Your task to perform on an android device: When is my next meeting? Image 0: 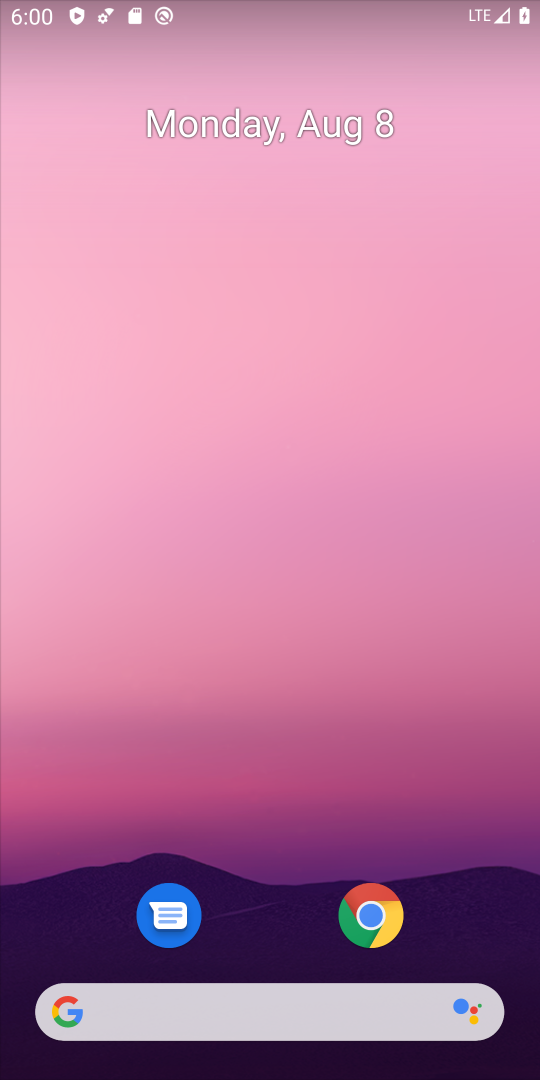
Step 0: drag from (282, 848) to (262, 35)
Your task to perform on an android device: When is my next meeting? Image 1: 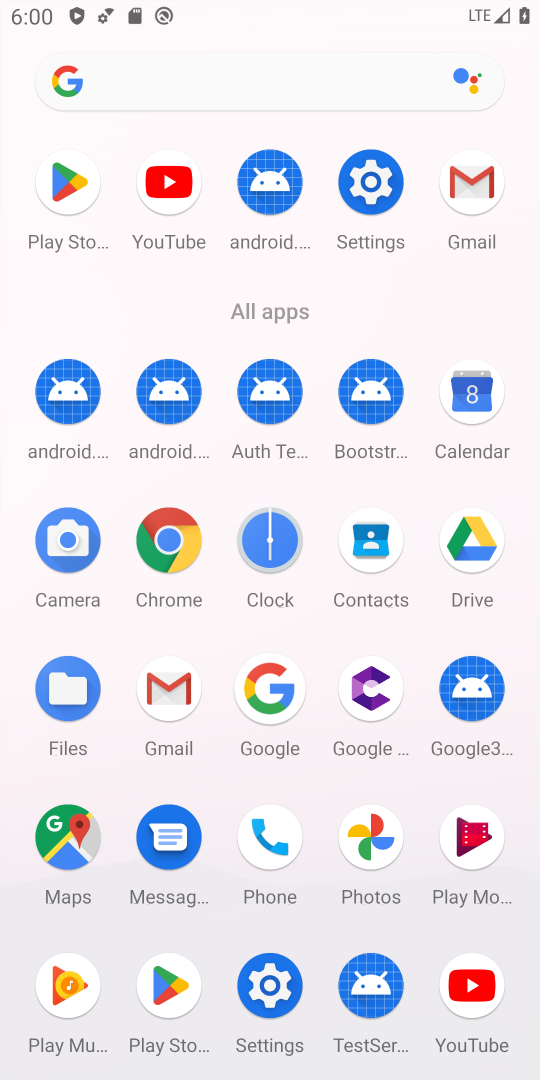
Step 1: click (473, 393)
Your task to perform on an android device: When is my next meeting? Image 2: 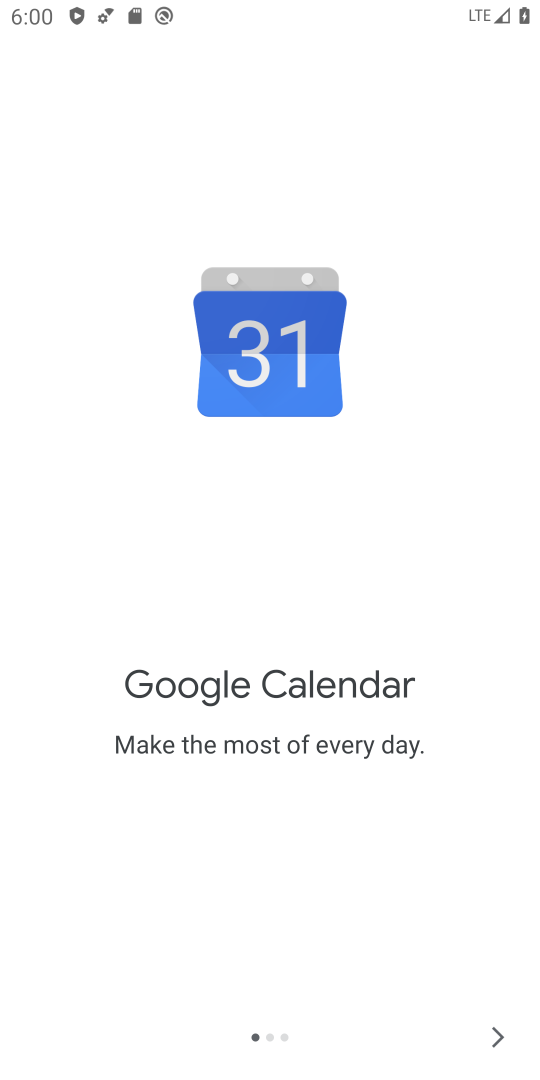
Step 2: click (497, 1027)
Your task to perform on an android device: When is my next meeting? Image 3: 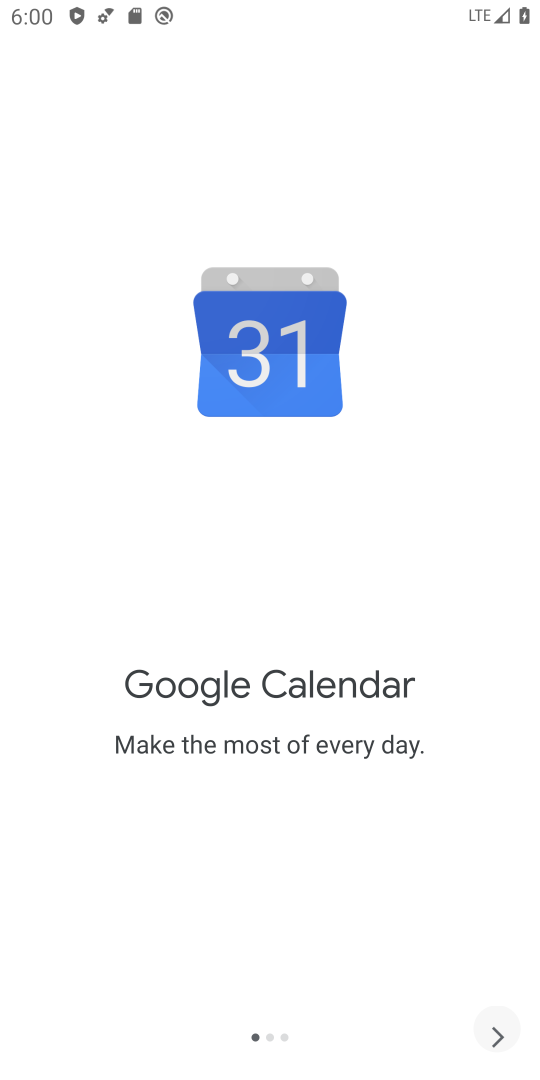
Step 3: click (497, 1027)
Your task to perform on an android device: When is my next meeting? Image 4: 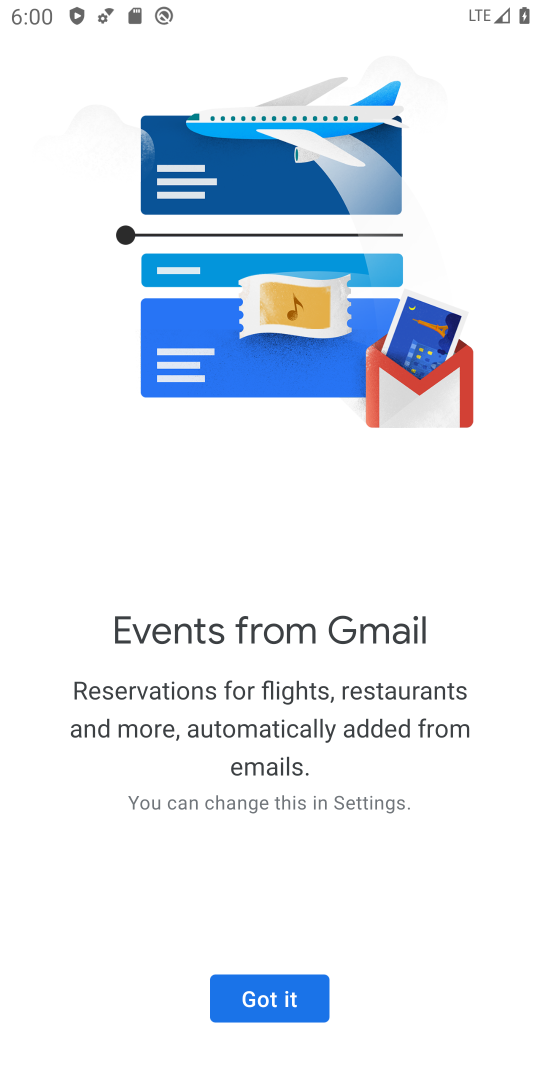
Step 4: click (242, 999)
Your task to perform on an android device: When is my next meeting? Image 5: 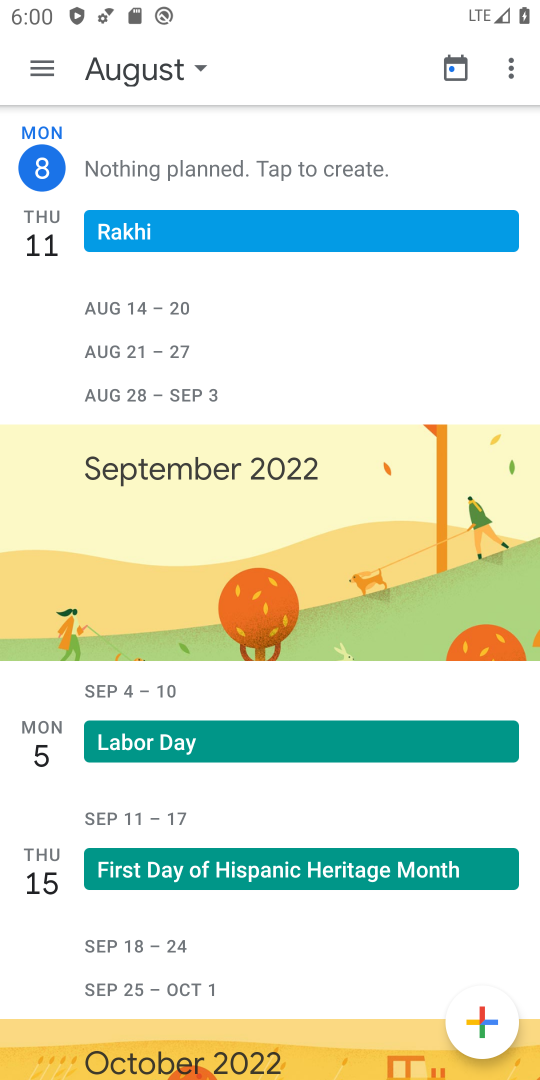
Step 5: click (34, 65)
Your task to perform on an android device: When is my next meeting? Image 6: 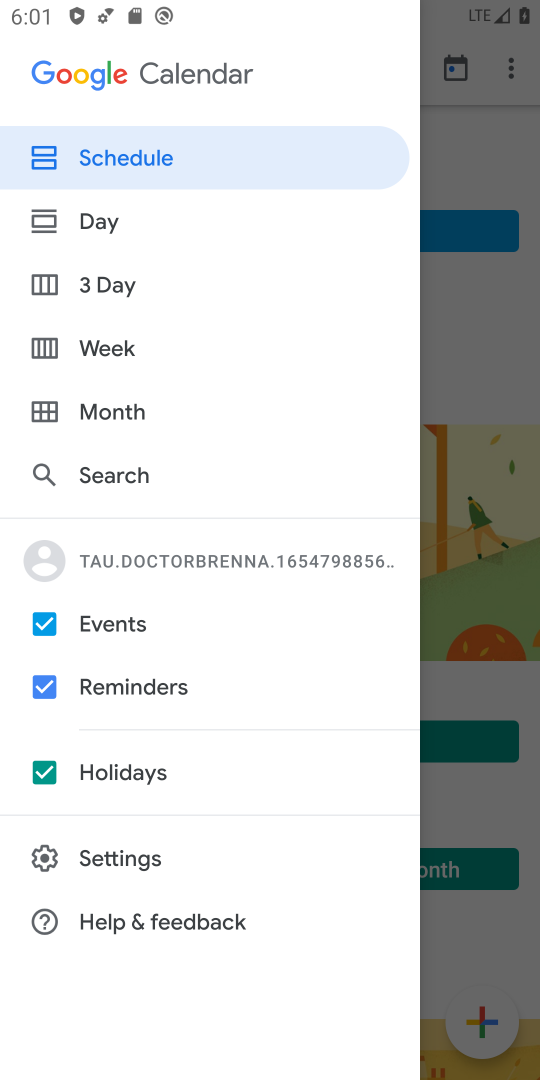
Step 6: click (97, 223)
Your task to perform on an android device: When is my next meeting? Image 7: 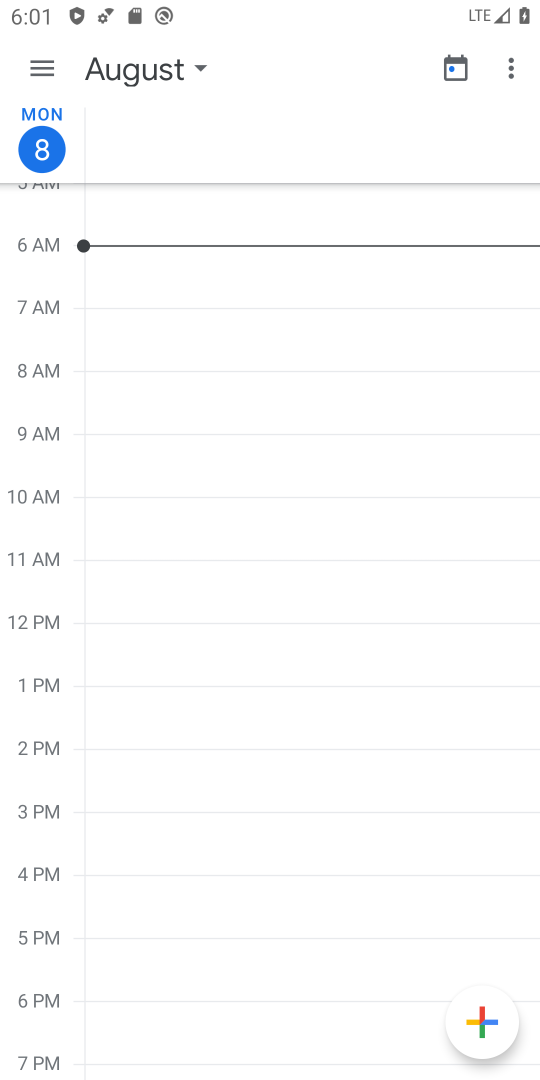
Step 7: task complete